Your task to perform on an android device: Open ESPN.com Image 0: 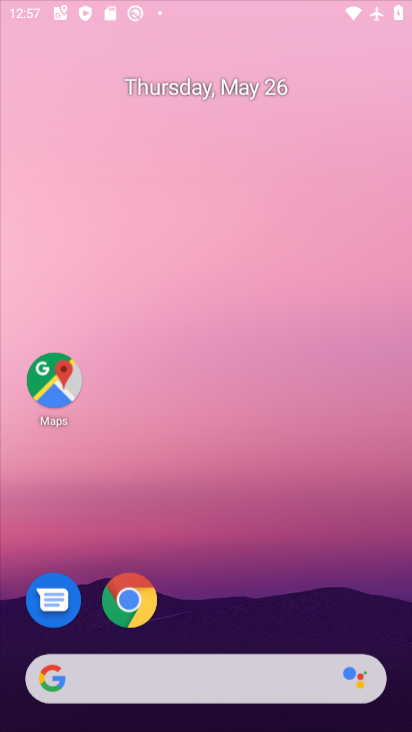
Step 0: click (259, 148)
Your task to perform on an android device: Open ESPN.com Image 1: 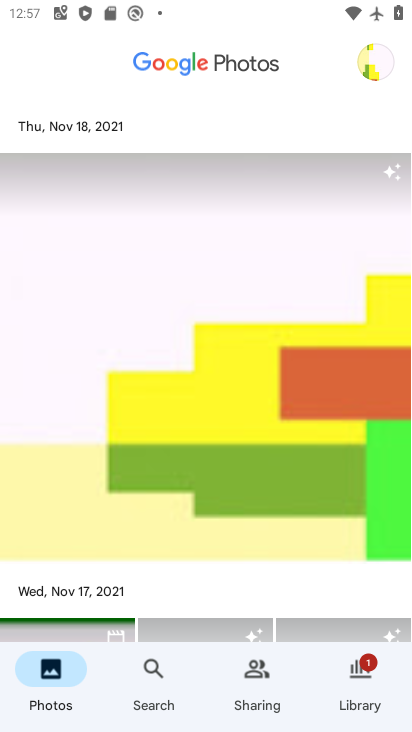
Step 1: press home button
Your task to perform on an android device: Open ESPN.com Image 2: 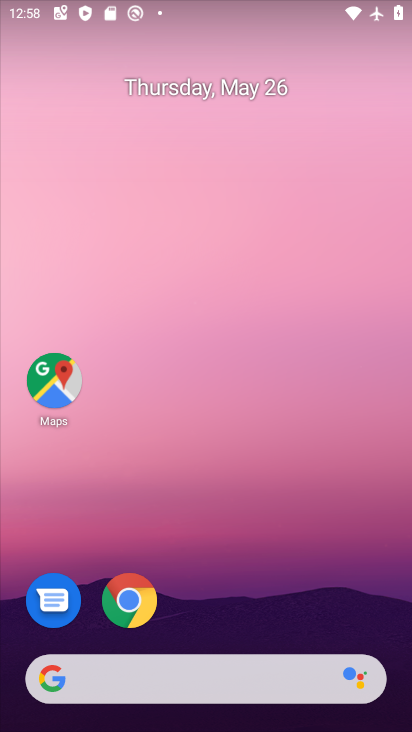
Step 2: click (125, 599)
Your task to perform on an android device: Open ESPN.com Image 3: 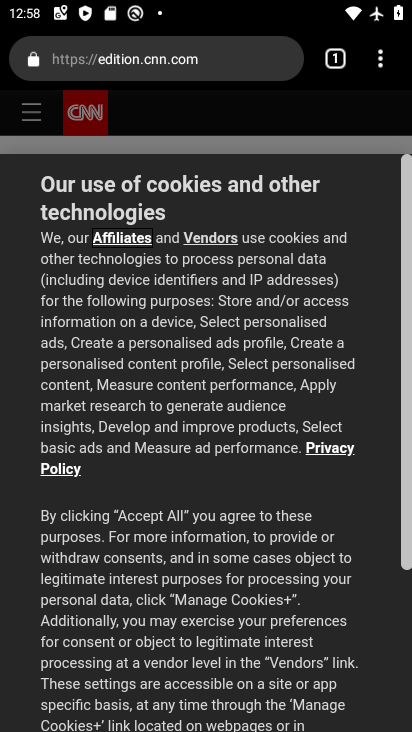
Step 3: click (195, 58)
Your task to perform on an android device: Open ESPN.com Image 4: 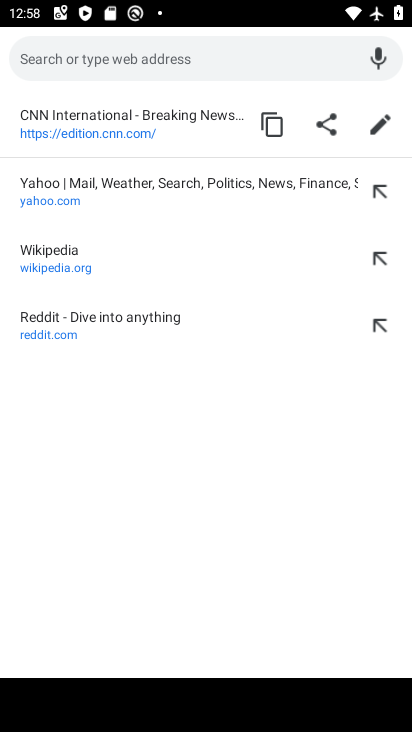
Step 4: type "espn.com"
Your task to perform on an android device: Open ESPN.com Image 5: 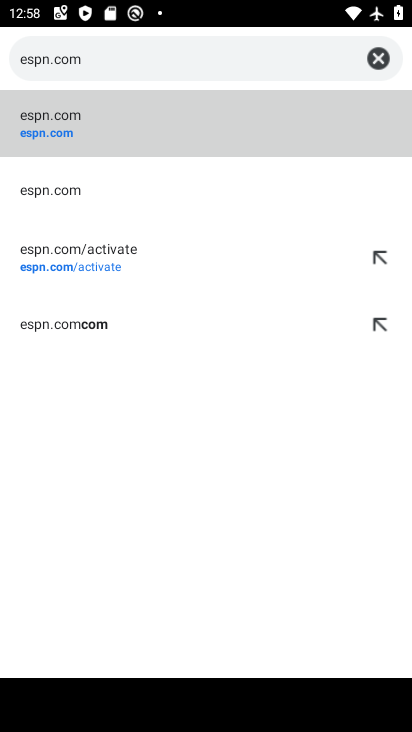
Step 5: click (46, 132)
Your task to perform on an android device: Open ESPN.com Image 6: 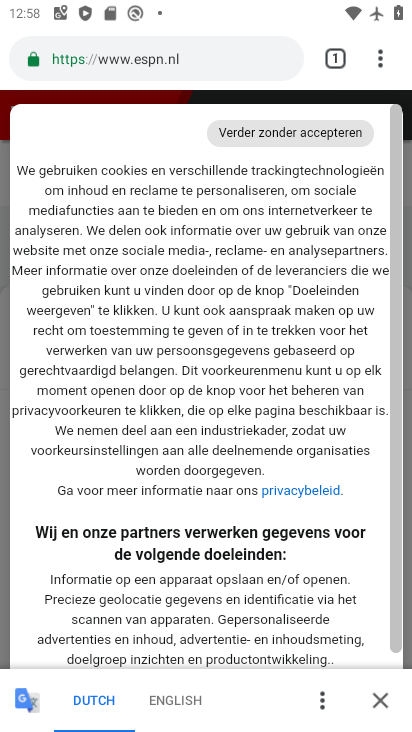
Step 6: task complete